Your task to perform on an android device: toggle location history Image 0: 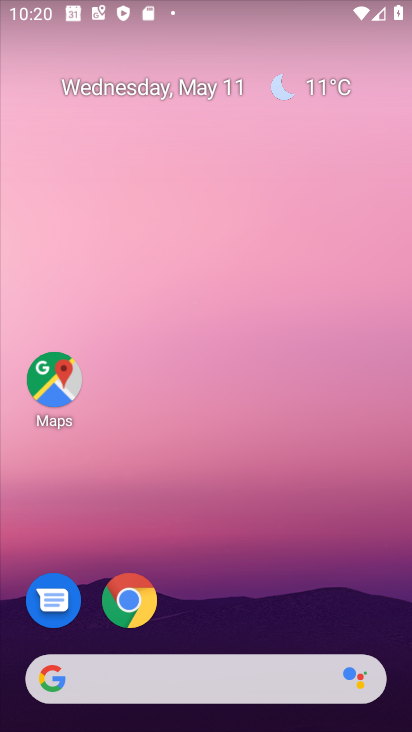
Step 0: click (130, 617)
Your task to perform on an android device: toggle location history Image 1: 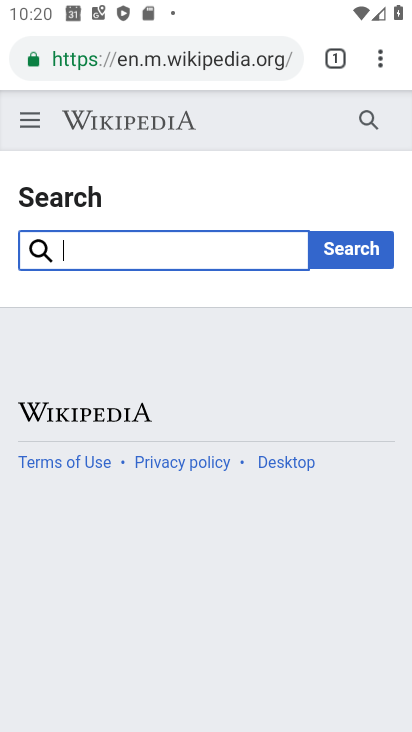
Step 1: click (386, 57)
Your task to perform on an android device: toggle location history Image 2: 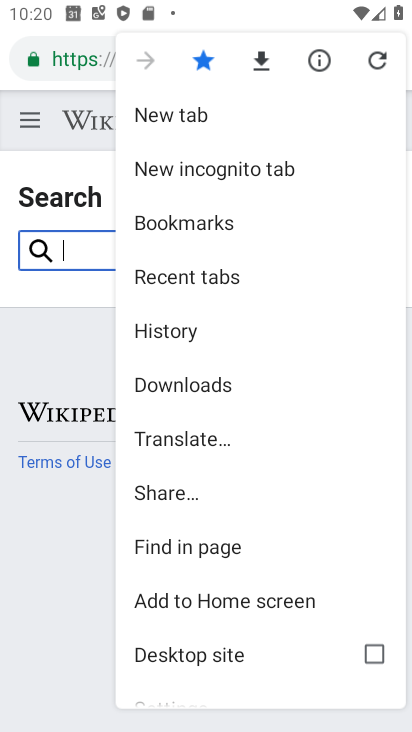
Step 2: drag from (283, 643) to (185, 152)
Your task to perform on an android device: toggle location history Image 3: 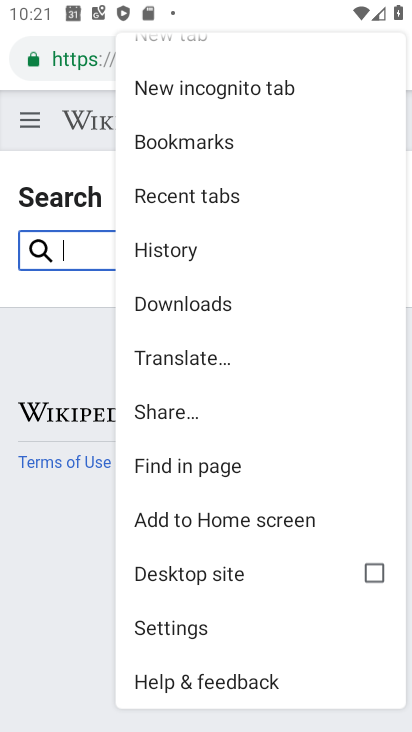
Step 3: click (255, 623)
Your task to perform on an android device: toggle location history Image 4: 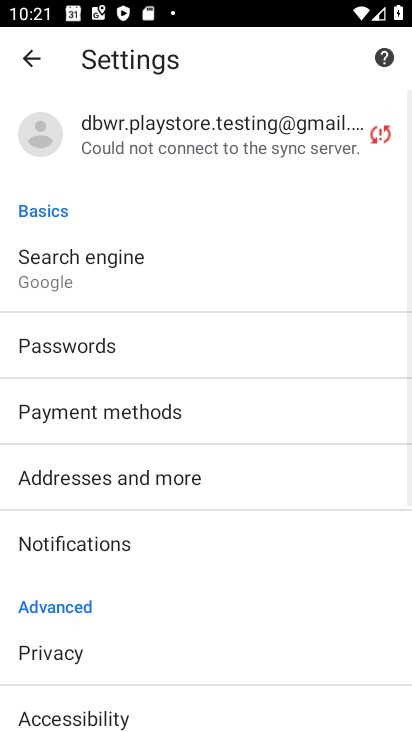
Step 4: drag from (233, 586) to (158, 146)
Your task to perform on an android device: toggle location history Image 5: 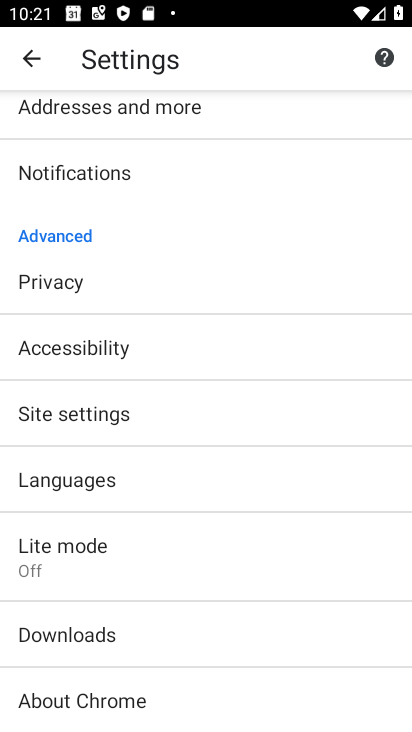
Step 5: click (151, 410)
Your task to perform on an android device: toggle location history Image 6: 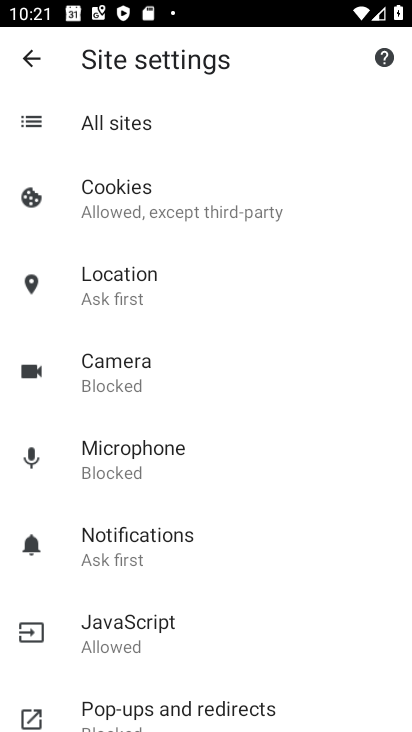
Step 6: drag from (255, 580) to (214, 289)
Your task to perform on an android device: toggle location history Image 7: 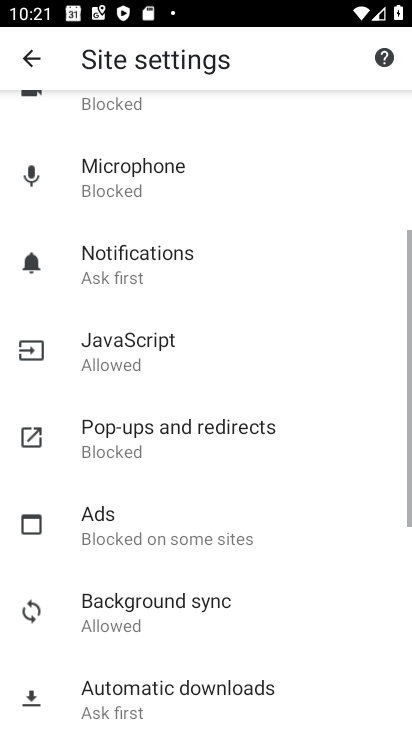
Step 7: drag from (303, 571) to (221, 187)
Your task to perform on an android device: toggle location history Image 8: 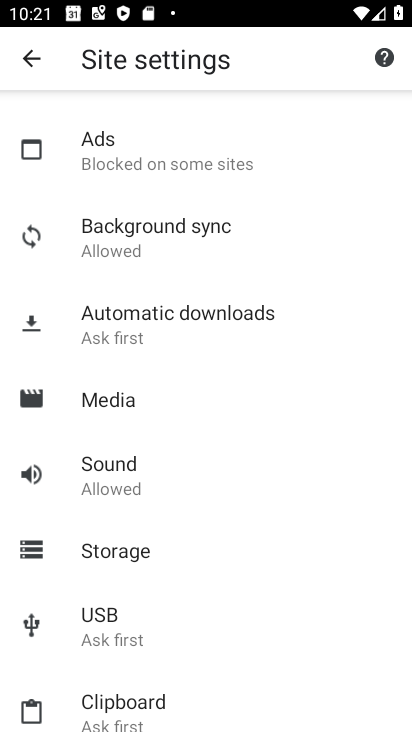
Step 8: drag from (338, 600) to (271, 250)
Your task to perform on an android device: toggle location history Image 9: 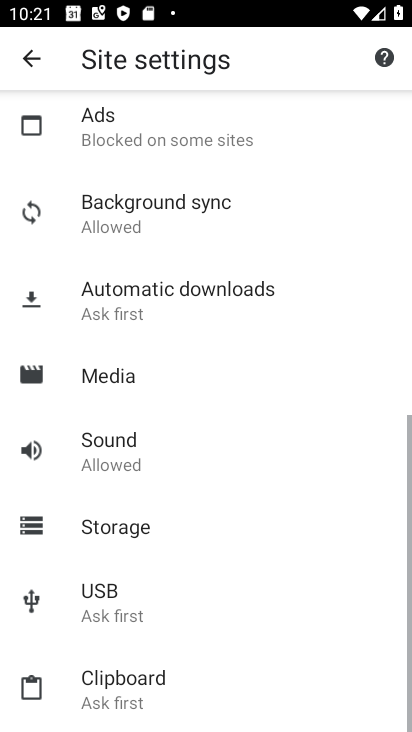
Step 9: drag from (259, 215) to (307, 601)
Your task to perform on an android device: toggle location history Image 10: 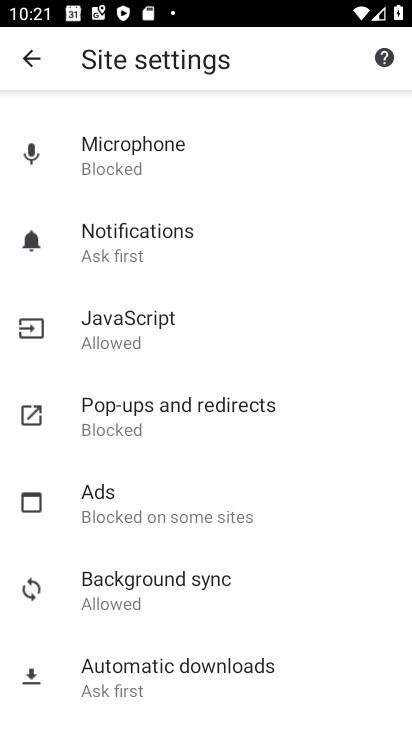
Step 10: drag from (276, 303) to (285, 692)
Your task to perform on an android device: toggle location history Image 11: 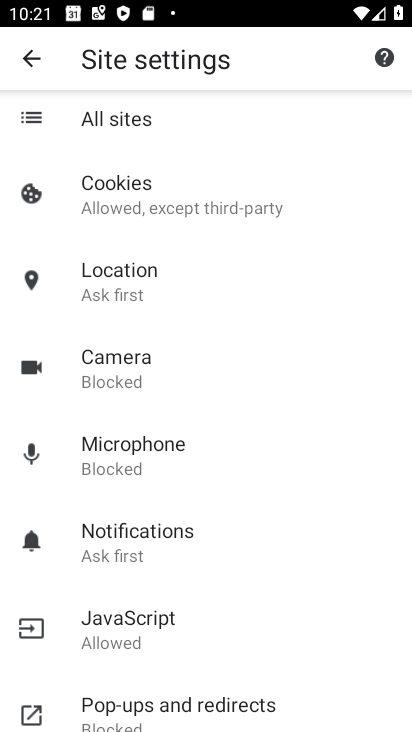
Step 11: press back button
Your task to perform on an android device: toggle location history Image 12: 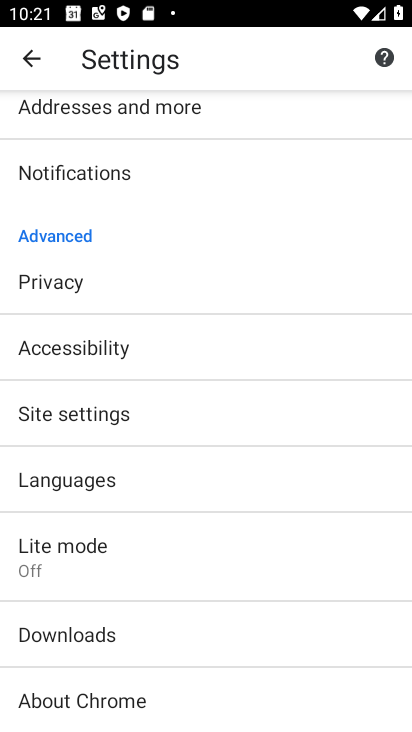
Step 12: drag from (284, 635) to (287, 223)
Your task to perform on an android device: toggle location history Image 13: 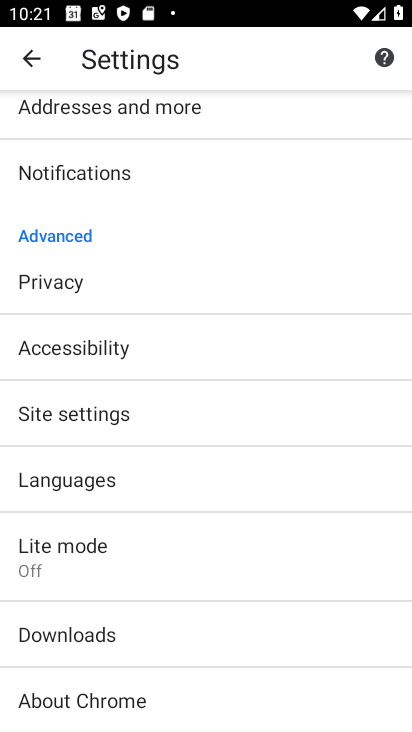
Step 13: drag from (287, 218) to (307, 659)
Your task to perform on an android device: toggle location history Image 14: 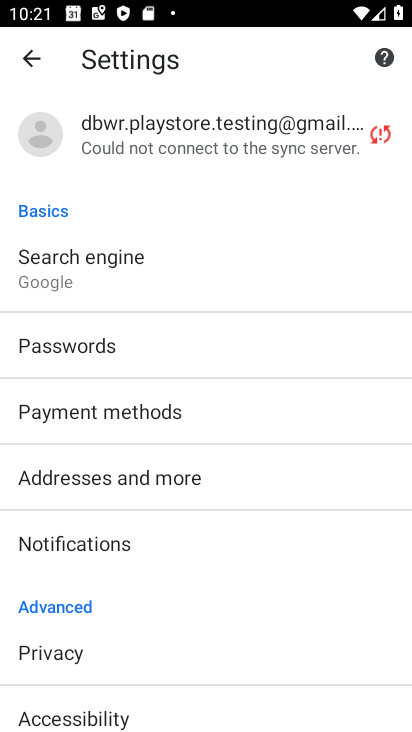
Step 14: press back button
Your task to perform on an android device: toggle location history Image 15: 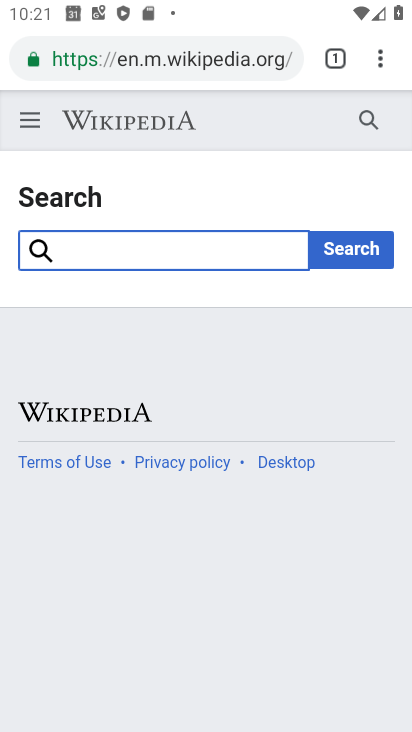
Step 15: press back button
Your task to perform on an android device: toggle location history Image 16: 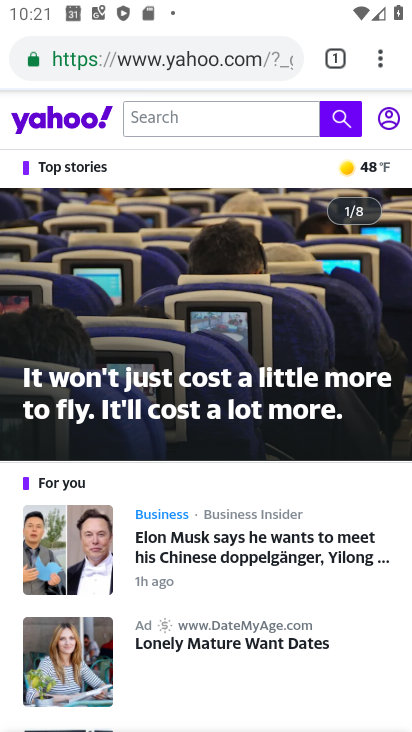
Step 16: press back button
Your task to perform on an android device: toggle location history Image 17: 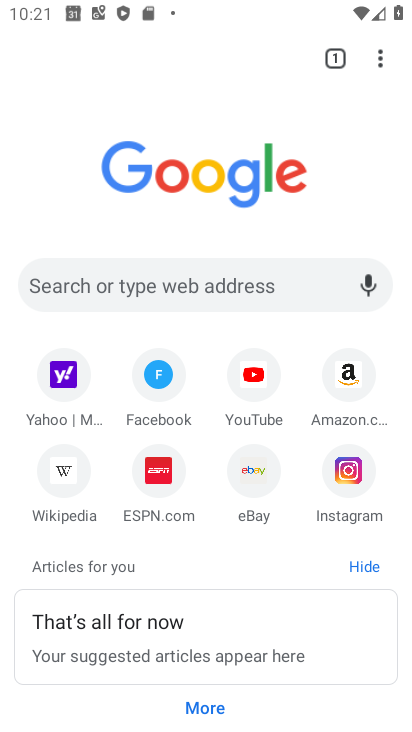
Step 17: click (382, 57)
Your task to perform on an android device: toggle location history Image 18: 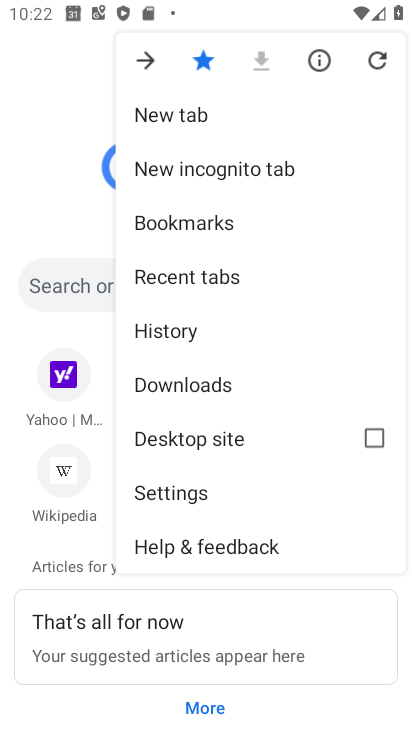
Step 18: click (213, 492)
Your task to perform on an android device: toggle location history Image 19: 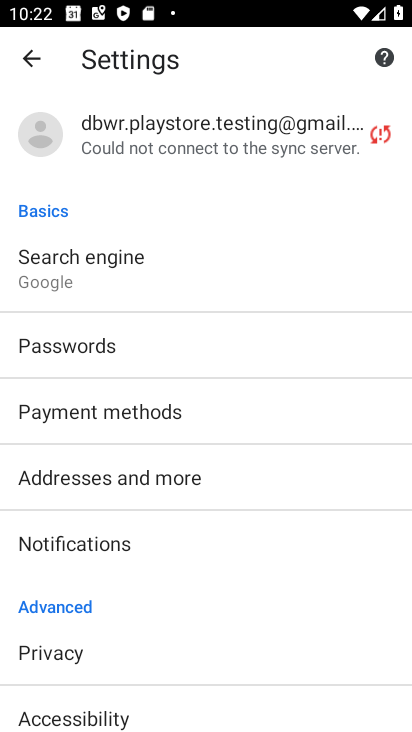
Step 19: drag from (220, 628) to (231, 236)
Your task to perform on an android device: toggle location history Image 20: 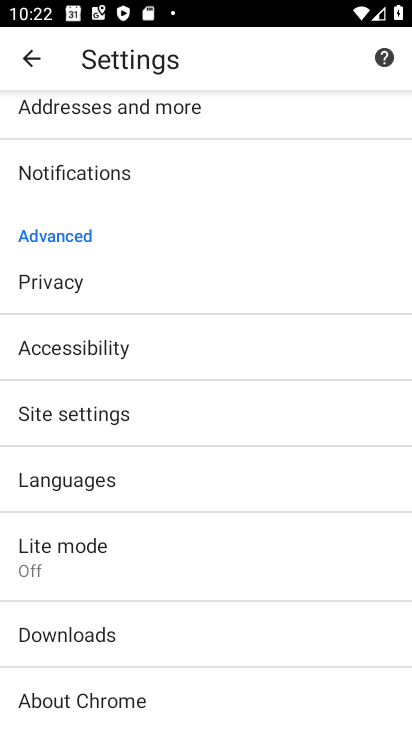
Step 20: press home button
Your task to perform on an android device: toggle location history Image 21: 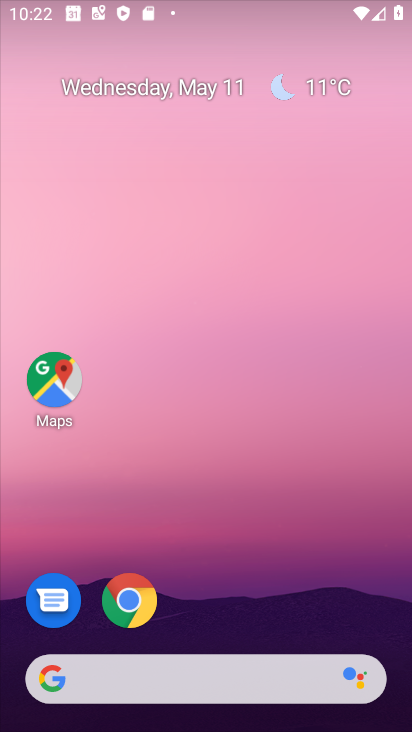
Step 21: drag from (272, 581) to (222, 140)
Your task to perform on an android device: toggle location history Image 22: 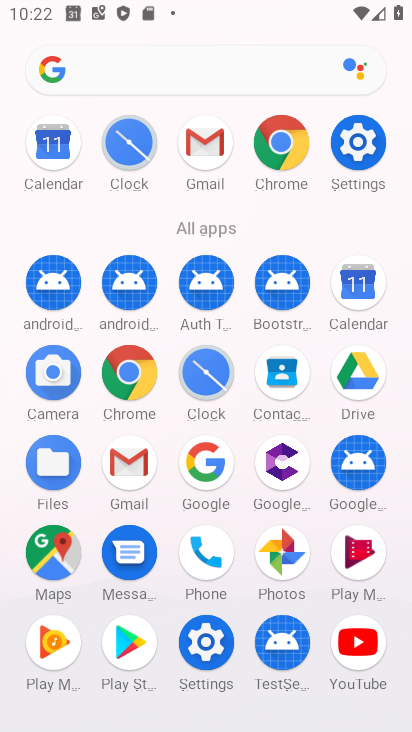
Step 22: click (366, 144)
Your task to perform on an android device: toggle location history Image 23: 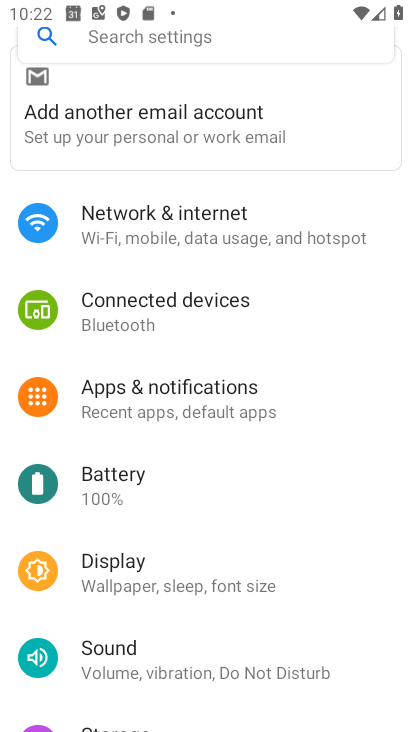
Step 23: drag from (238, 505) to (283, 189)
Your task to perform on an android device: toggle location history Image 24: 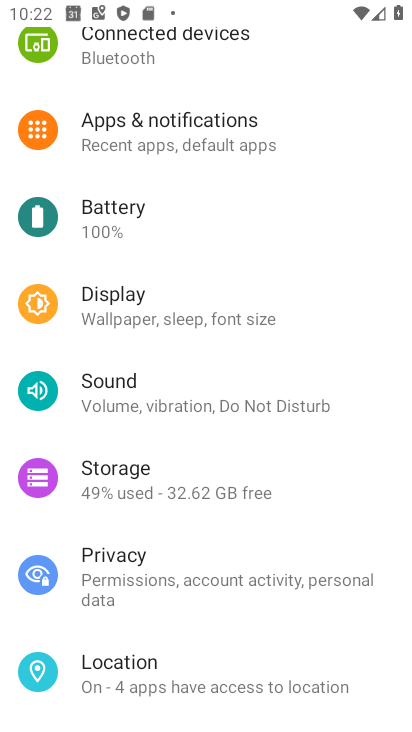
Step 24: click (166, 670)
Your task to perform on an android device: toggle location history Image 25: 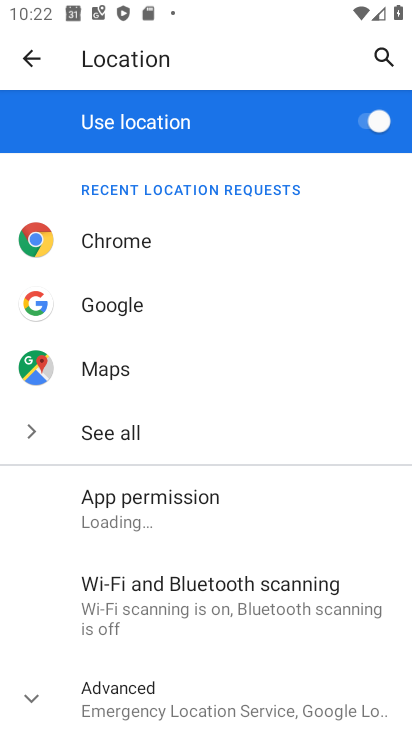
Step 25: drag from (237, 601) to (258, 310)
Your task to perform on an android device: toggle location history Image 26: 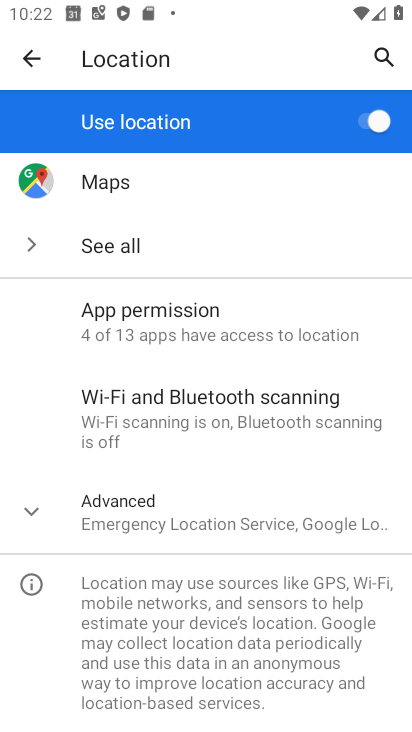
Step 26: click (181, 516)
Your task to perform on an android device: toggle location history Image 27: 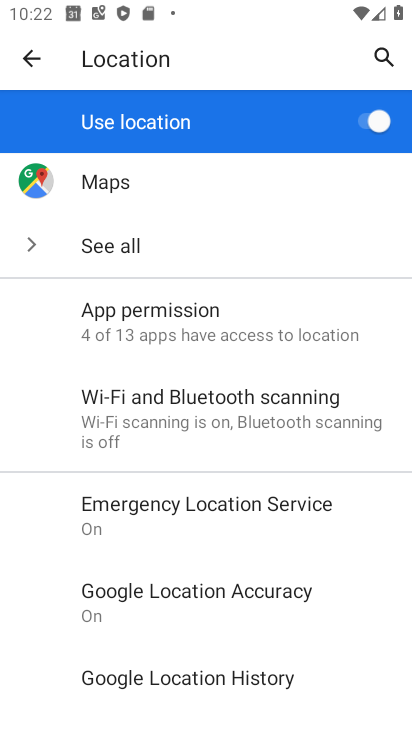
Step 27: drag from (337, 634) to (320, 320)
Your task to perform on an android device: toggle location history Image 28: 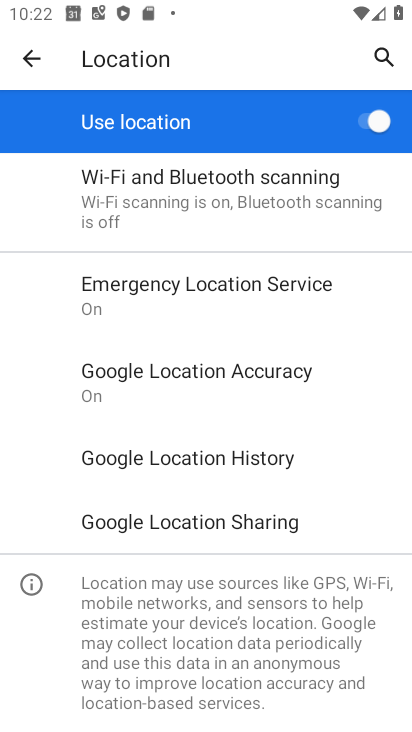
Step 28: drag from (309, 574) to (327, 301)
Your task to perform on an android device: toggle location history Image 29: 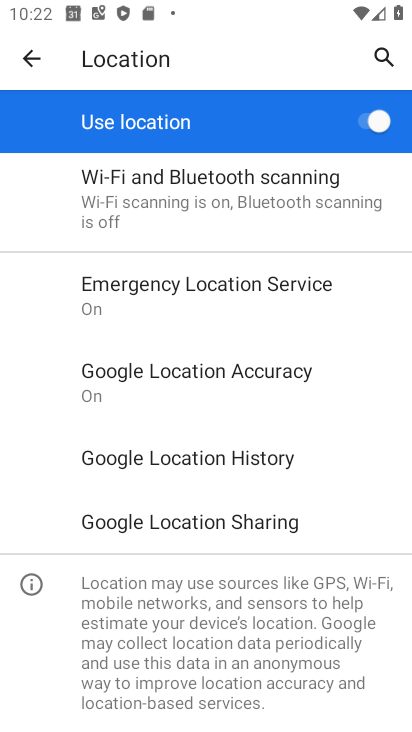
Step 29: drag from (311, 364) to (360, 652)
Your task to perform on an android device: toggle location history Image 30: 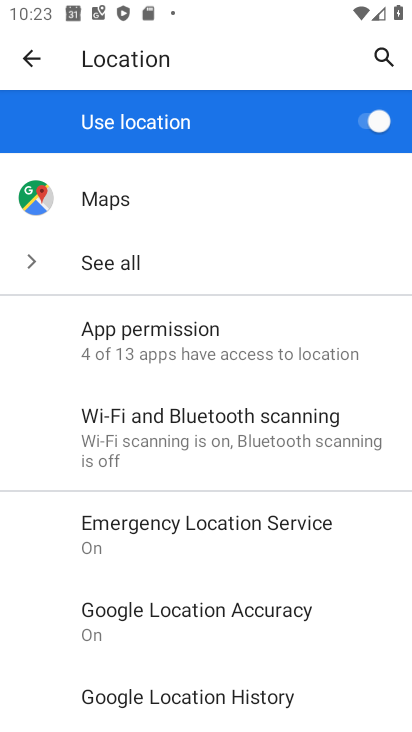
Step 30: click (122, 693)
Your task to perform on an android device: toggle location history Image 31: 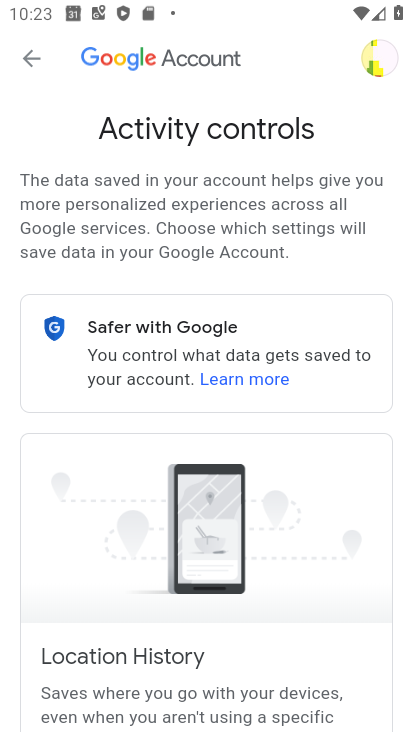
Step 31: drag from (309, 531) to (329, 137)
Your task to perform on an android device: toggle location history Image 32: 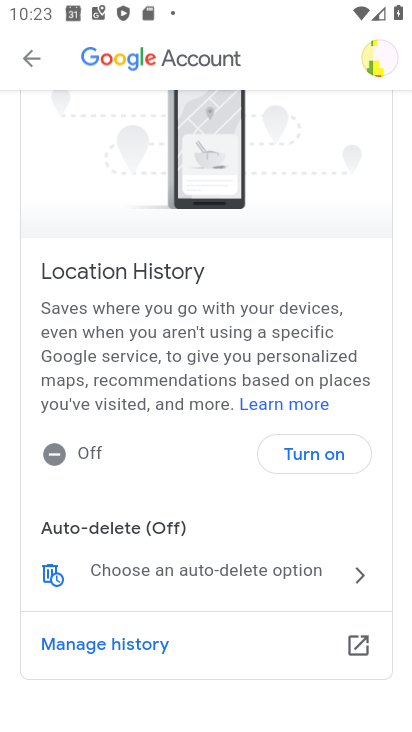
Step 32: click (333, 450)
Your task to perform on an android device: toggle location history Image 33: 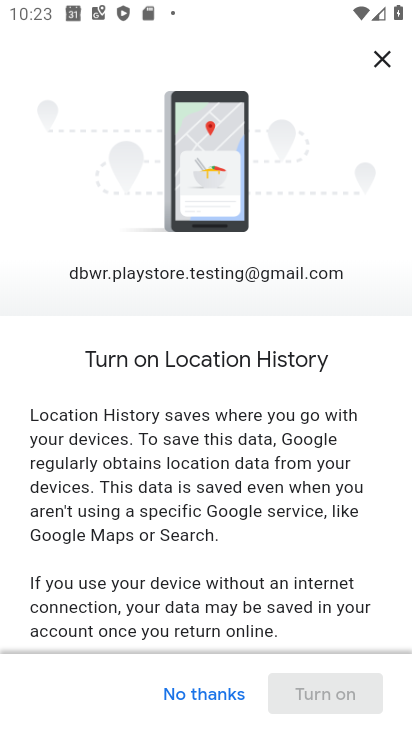
Step 33: drag from (285, 590) to (307, 249)
Your task to perform on an android device: toggle location history Image 34: 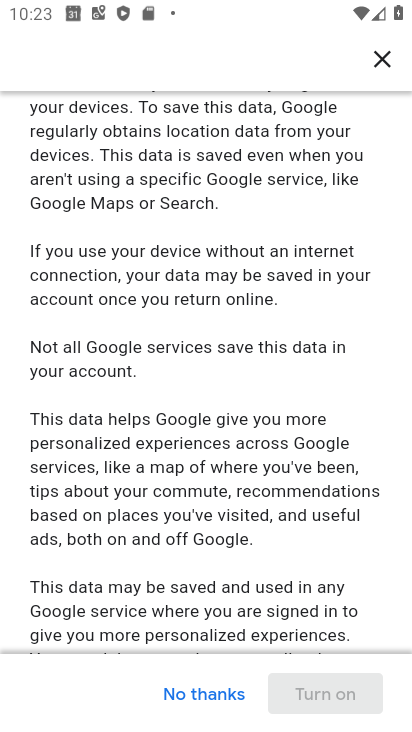
Step 34: drag from (291, 531) to (325, 101)
Your task to perform on an android device: toggle location history Image 35: 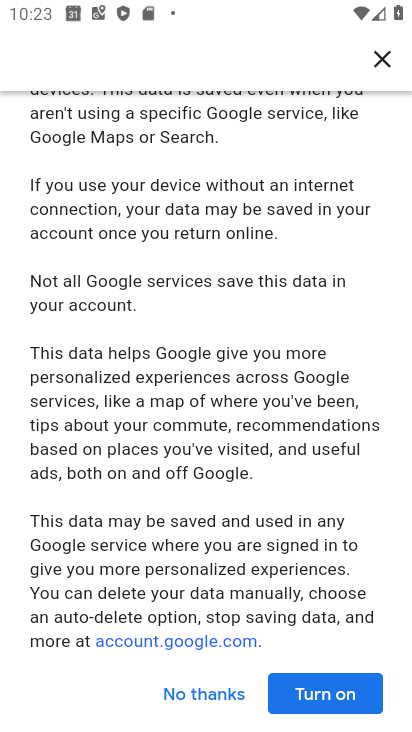
Step 35: click (322, 688)
Your task to perform on an android device: toggle location history Image 36: 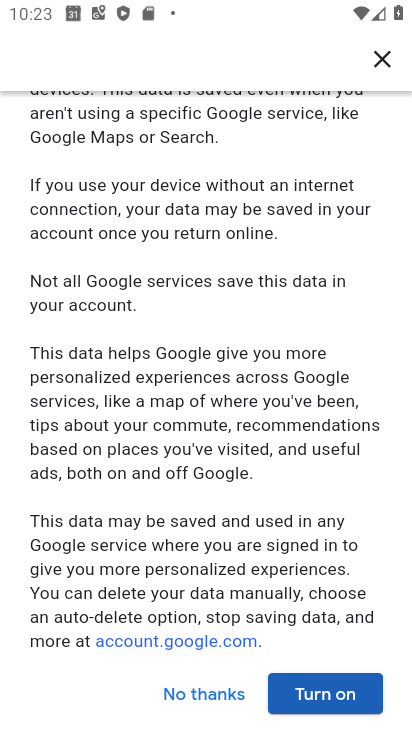
Step 36: click (325, 690)
Your task to perform on an android device: toggle location history Image 37: 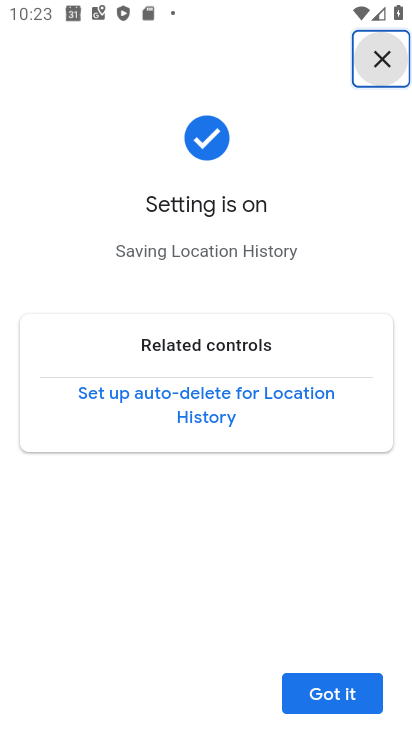
Step 37: click (346, 685)
Your task to perform on an android device: toggle location history Image 38: 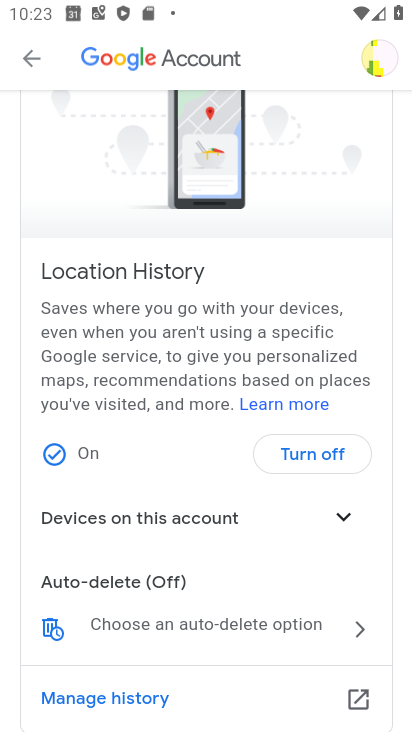
Step 38: task complete